Your task to perform on an android device: toggle wifi Image 0: 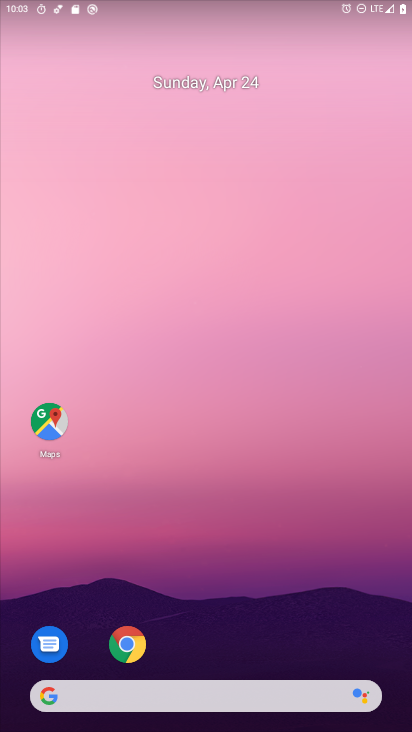
Step 0: drag from (182, 672) to (191, 148)
Your task to perform on an android device: toggle wifi Image 1: 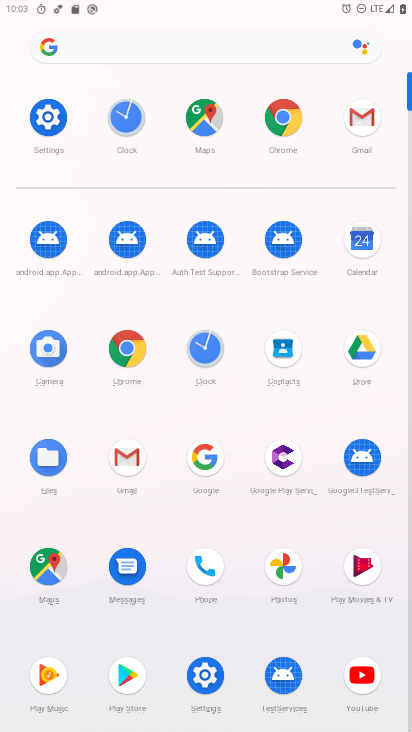
Step 1: click (194, 677)
Your task to perform on an android device: toggle wifi Image 2: 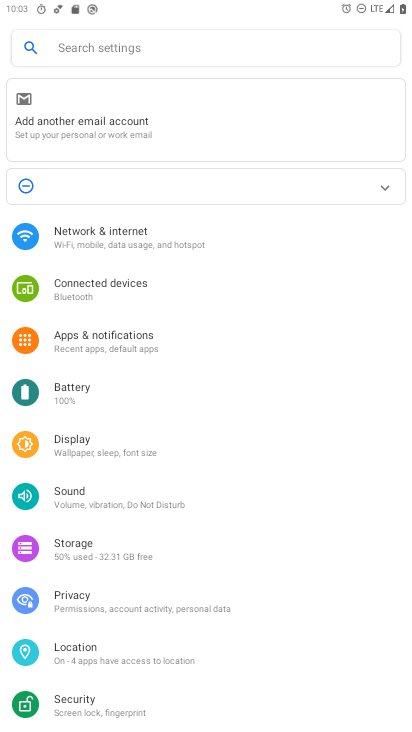
Step 2: click (98, 234)
Your task to perform on an android device: toggle wifi Image 3: 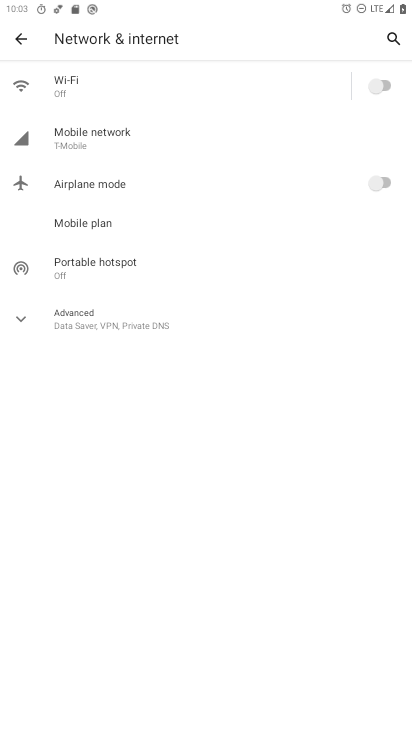
Step 3: click (379, 86)
Your task to perform on an android device: toggle wifi Image 4: 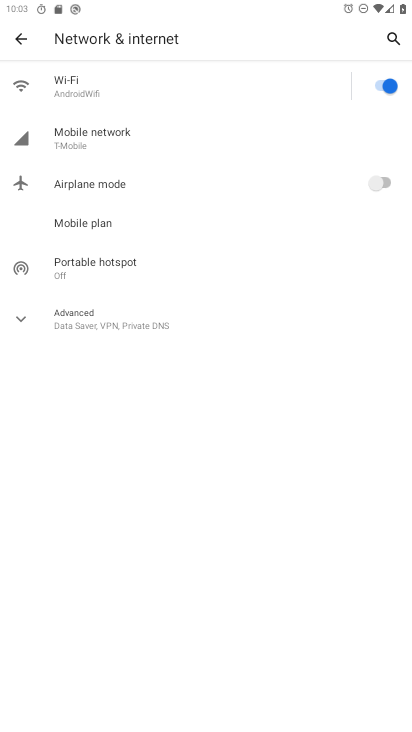
Step 4: task complete